Your task to perform on an android device: Open location settings Image 0: 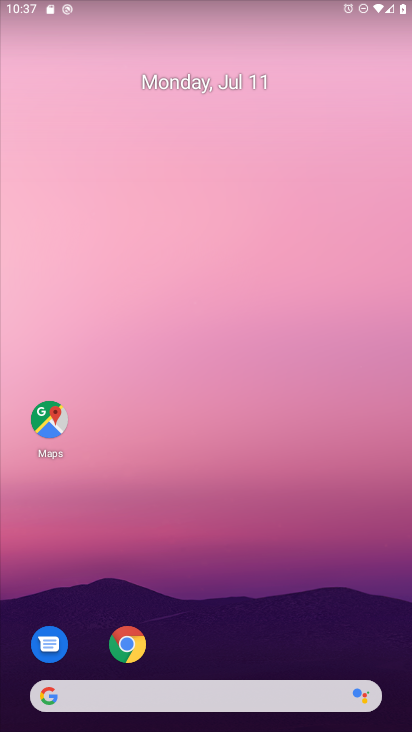
Step 0: drag from (179, 671) to (230, 138)
Your task to perform on an android device: Open location settings Image 1: 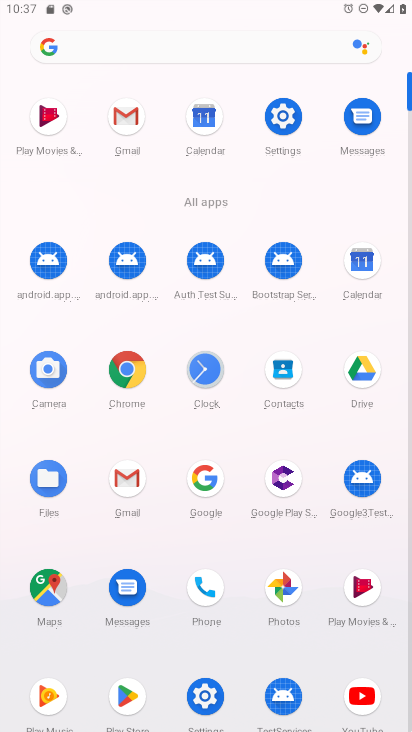
Step 1: click (282, 119)
Your task to perform on an android device: Open location settings Image 2: 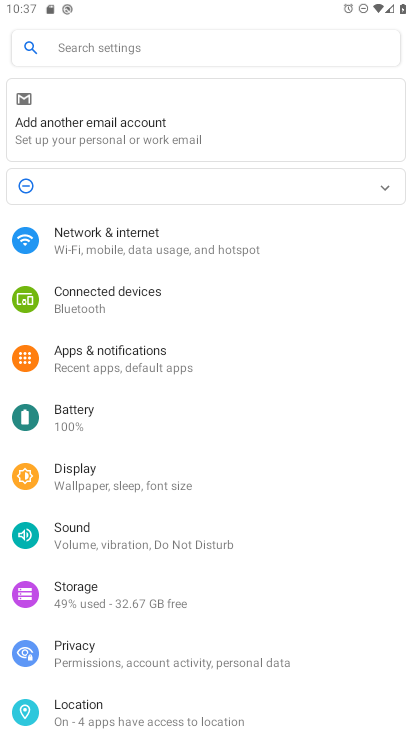
Step 2: drag from (196, 679) to (254, 318)
Your task to perform on an android device: Open location settings Image 3: 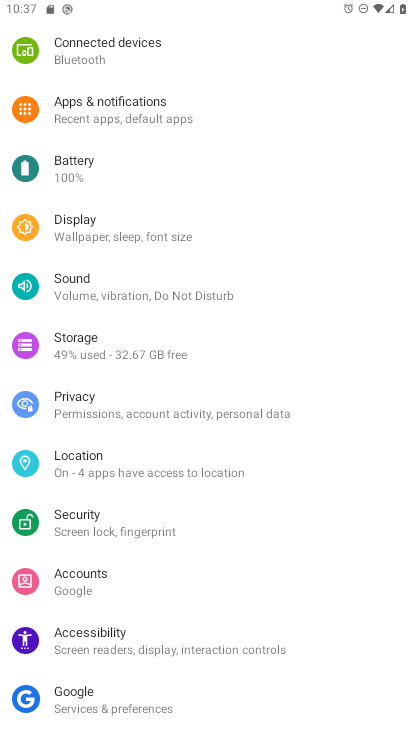
Step 3: click (143, 601)
Your task to perform on an android device: Open location settings Image 4: 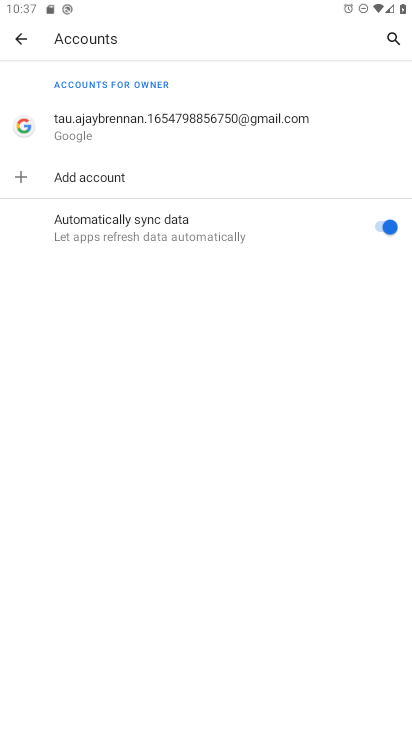
Step 4: click (26, 36)
Your task to perform on an android device: Open location settings Image 5: 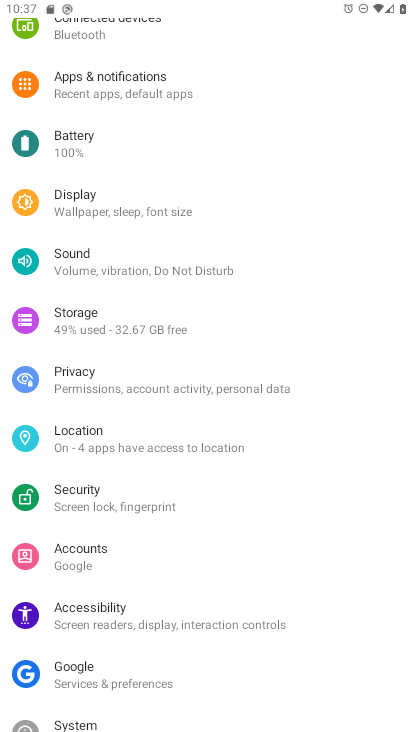
Step 5: click (76, 436)
Your task to perform on an android device: Open location settings Image 6: 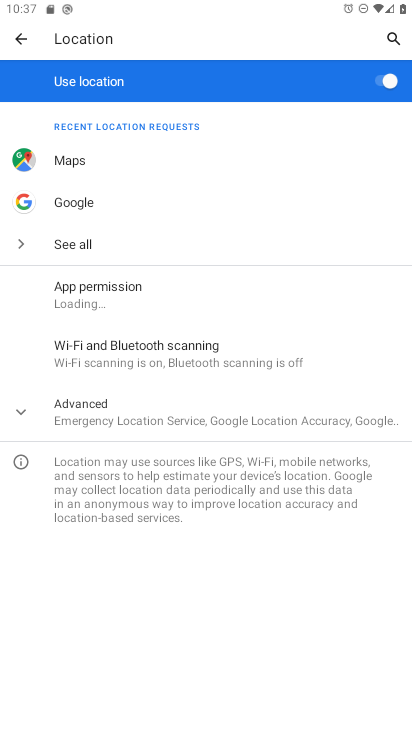
Step 6: click (84, 414)
Your task to perform on an android device: Open location settings Image 7: 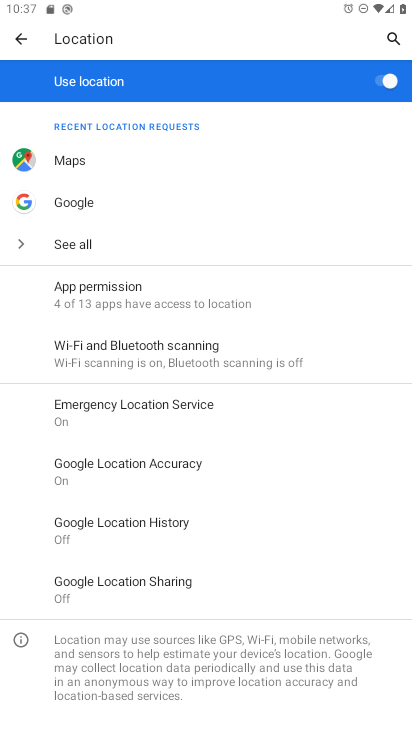
Step 7: task complete